Your task to perform on an android device: stop showing notifications on the lock screen Image 0: 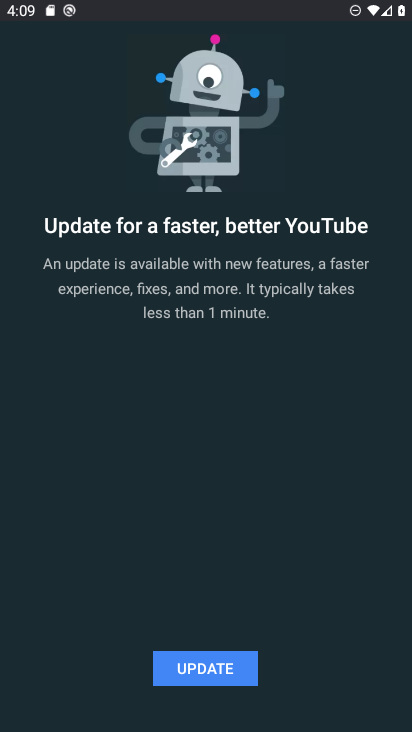
Step 0: press home button
Your task to perform on an android device: stop showing notifications on the lock screen Image 1: 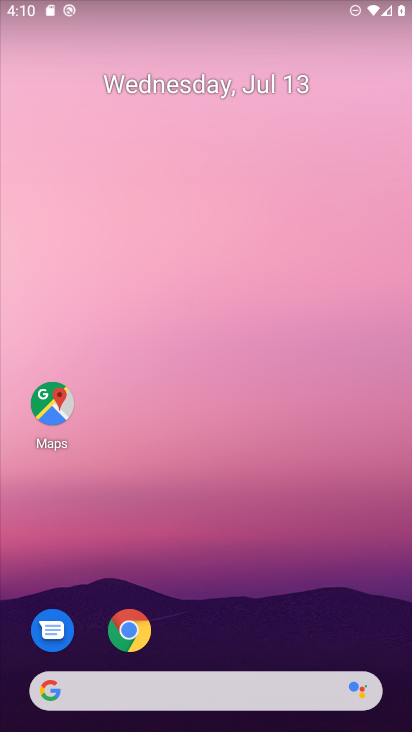
Step 1: drag from (280, 568) to (317, 431)
Your task to perform on an android device: stop showing notifications on the lock screen Image 2: 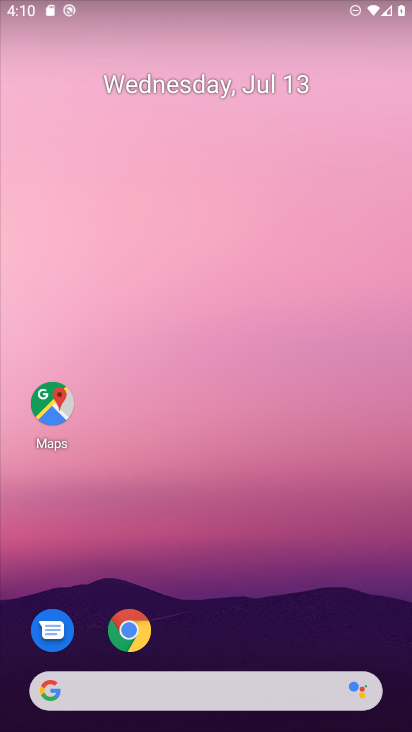
Step 2: drag from (177, 520) to (179, 136)
Your task to perform on an android device: stop showing notifications on the lock screen Image 3: 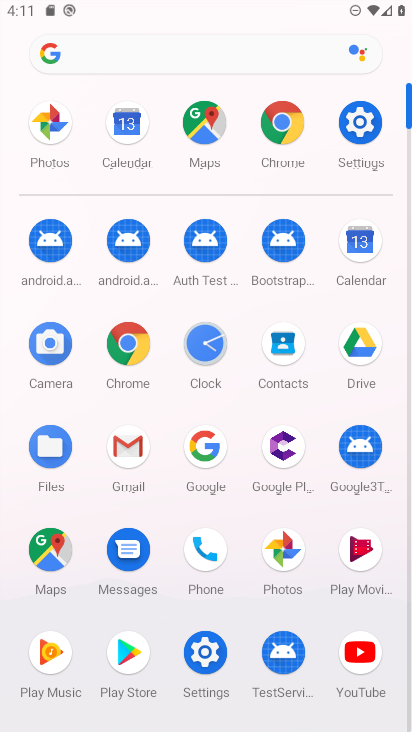
Step 3: click (359, 119)
Your task to perform on an android device: stop showing notifications on the lock screen Image 4: 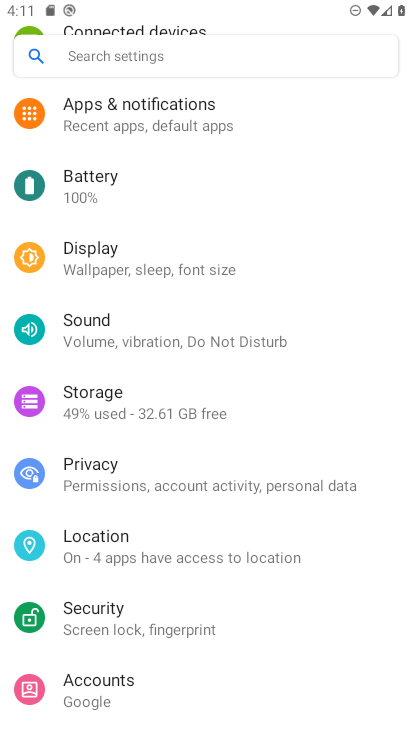
Step 4: click (198, 124)
Your task to perform on an android device: stop showing notifications on the lock screen Image 5: 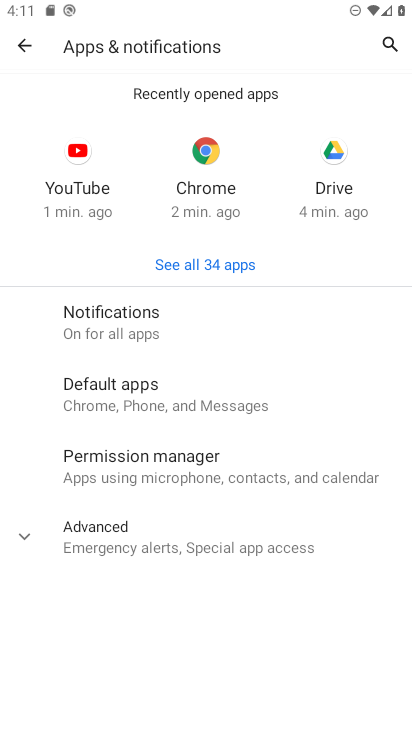
Step 5: click (138, 317)
Your task to perform on an android device: stop showing notifications on the lock screen Image 6: 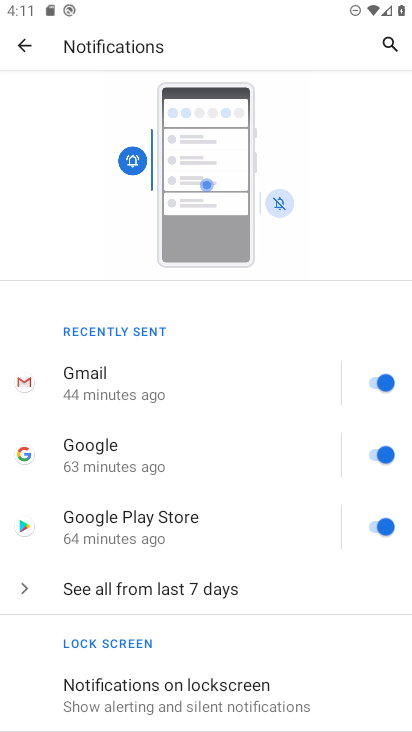
Step 6: click (186, 702)
Your task to perform on an android device: stop showing notifications on the lock screen Image 7: 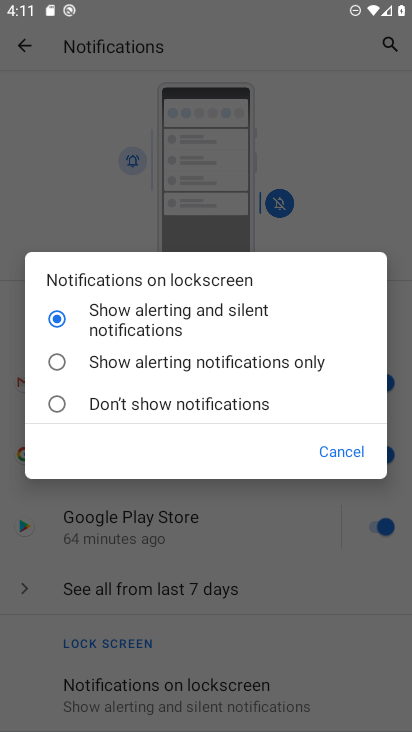
Step 7: click (236, 395)
Your task to perform on an android device: stop showing notifications on the lock screen Image 8: 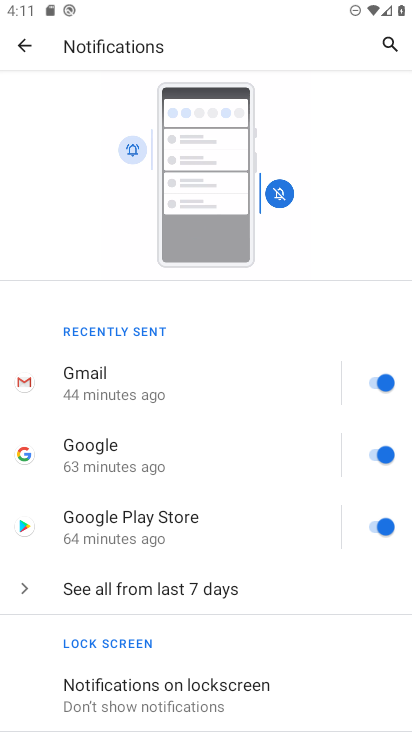
Step 8: task complete